Your task to perform on an android device: Open Yahoo.com Image 0: 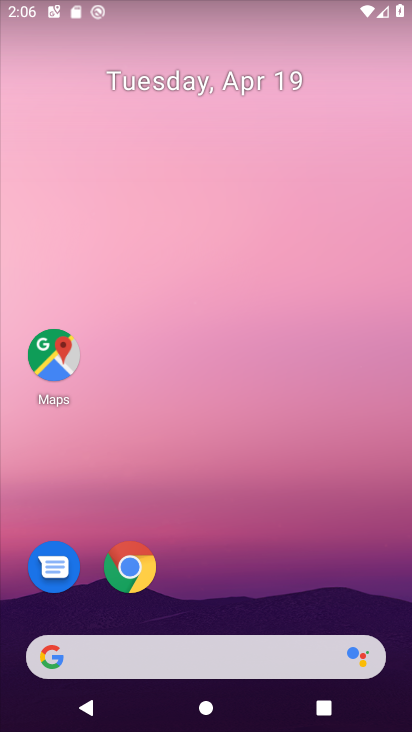
Step 0: click (129, 564)
Your task to perform on an android device: Open Yahoo.com Image 1: 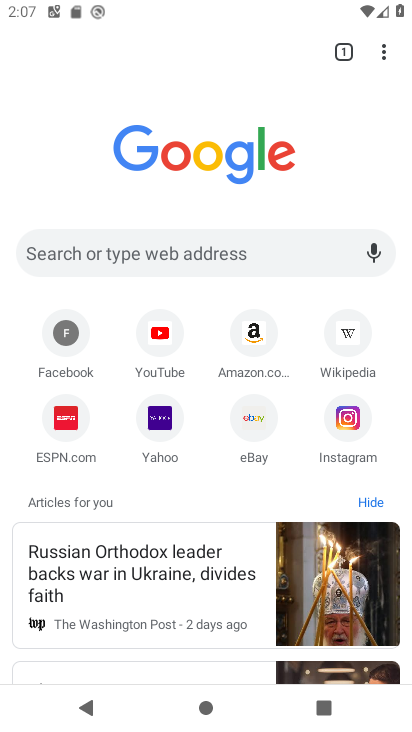
Step 1: click (165, 408)
Your task to perform on an android device: Open Yahoo.com Image 2: 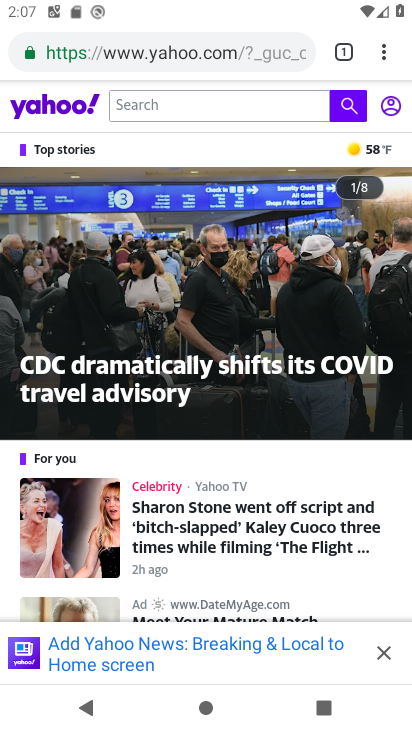
Step 2: task complete